Your task to perform on an android device: open a bookmark in the chrome app Image 0: 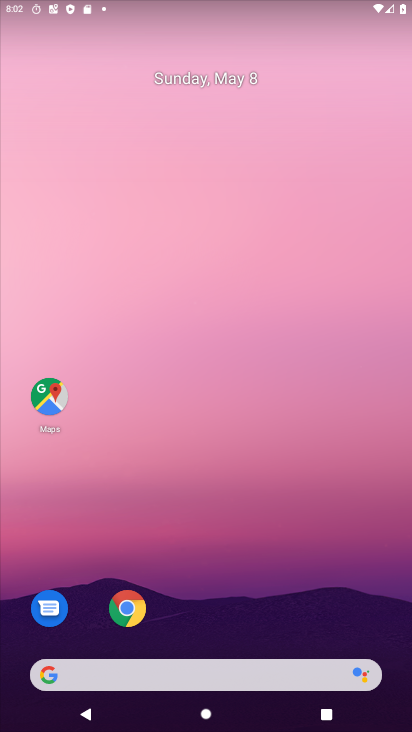
Step 0: click (122, 611)
Your task to perform on an android device: open a bookmark in the chrome app Image 1: 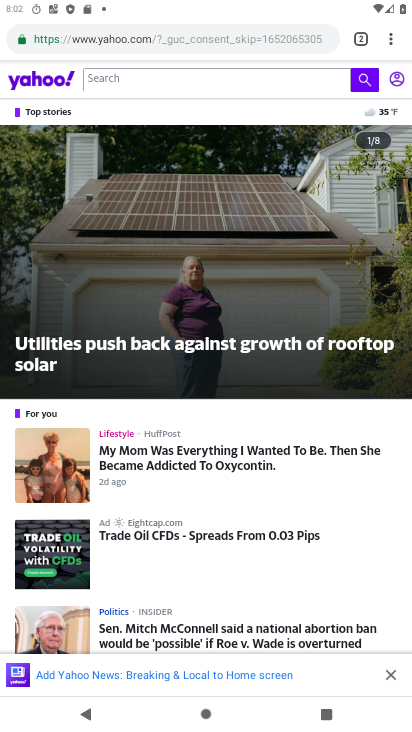
Step 1: drag from (388, 42) to (307, 153)
Your task to perform on an android device: open a bookmark in the chrome app Image 2: 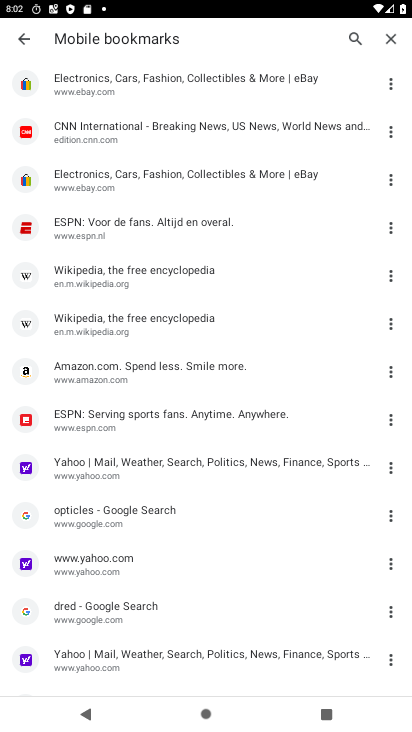
Step 2: click (121, 224)
Your task to perform on an android device: open a bookmark in the chrome app Image 3: 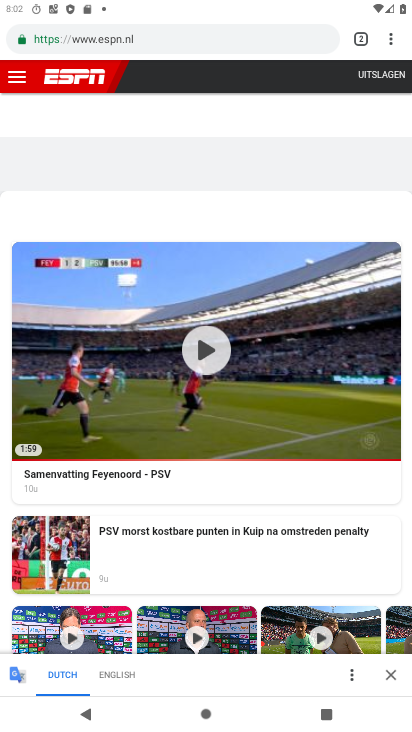
Step 3: task complete